Your task to perform on an android device: move an email to a new category in the gmail app Image 0: 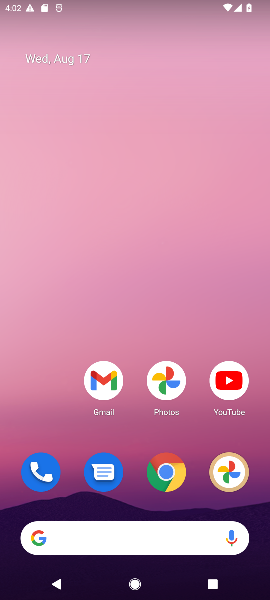
Step 0: drag from (111, 497) to (145, 4)
Your task to perform on an android device: move an email to a new category in the gmail app Image 1: 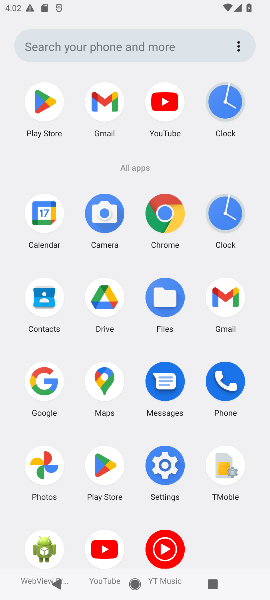
Step 1: click (226, 293)
Your task to perform on an android device: move an email to a new category in the gmail app Image 2: 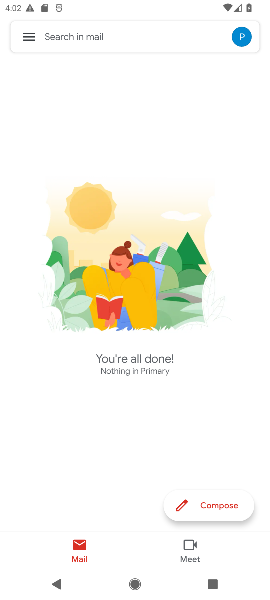
Step 2: task complete